Your task to perform on an android device: uninstall "Truecaller" Image 0: 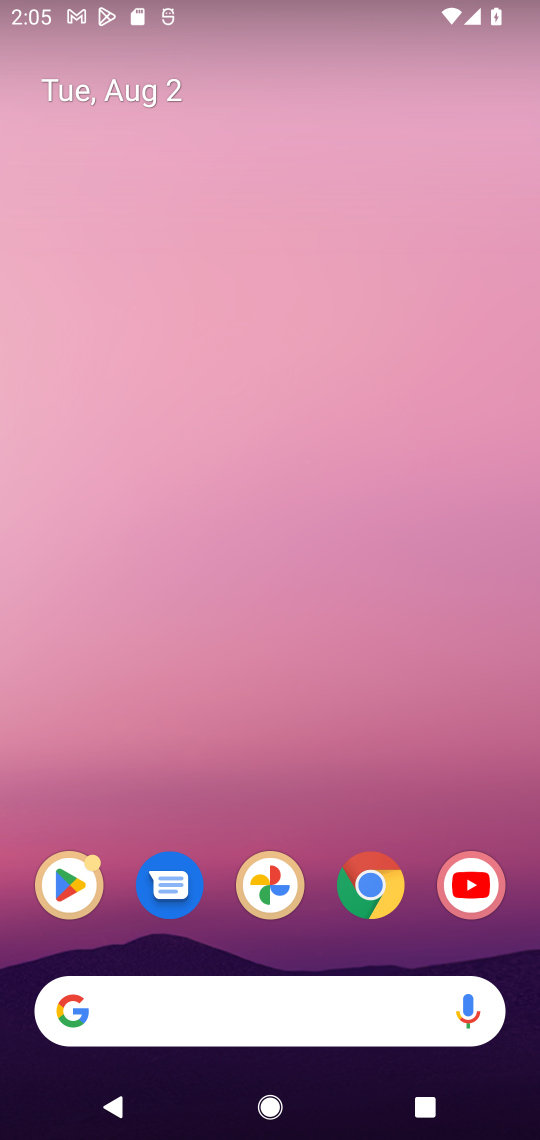
Step 0: click (75, 887)
Your task to perform on an android device: uninstall "Truecaller" Image 1: 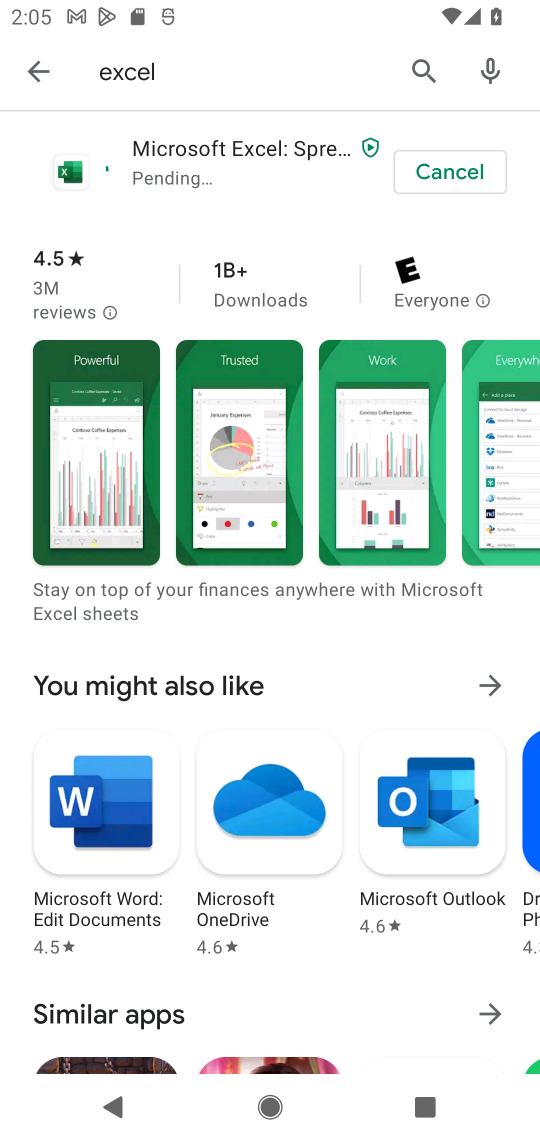
Step 1: click (447, 94)
Your task to perform on an android device: uninstall "Truecaller" Image 2: 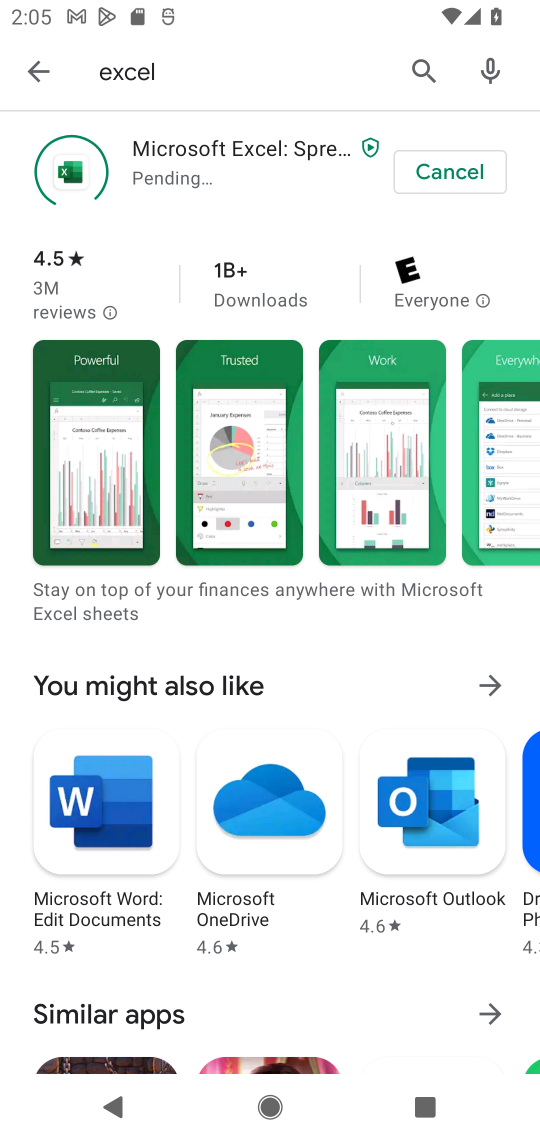
Step 2: click (447, 94)
Your task to perform on an android device: uninstall "Truecaller" Image 3: 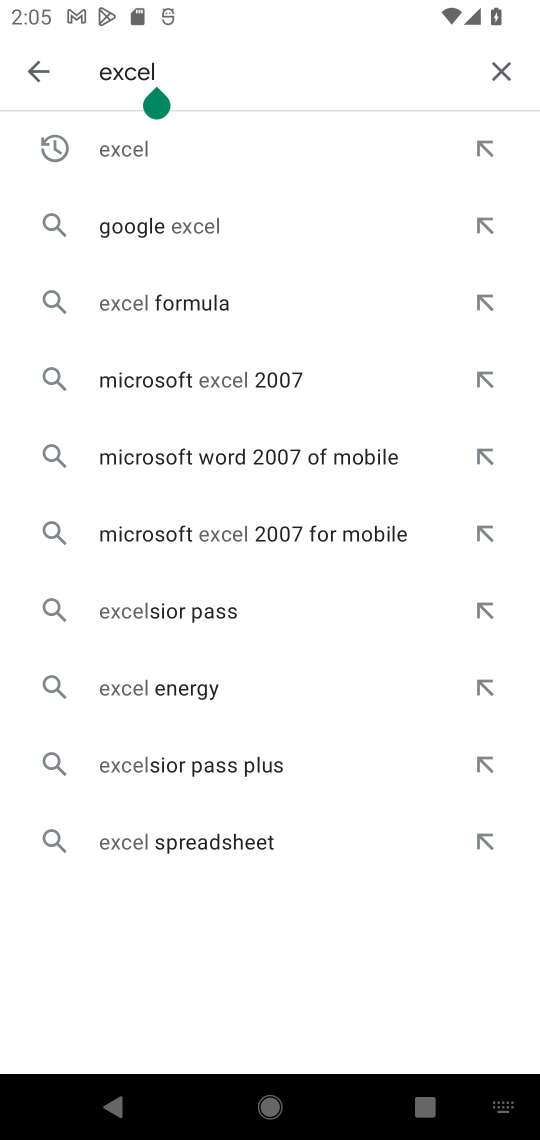
Step 3: click (511, 63)
Your task to perform on an android device: uninstall "Truecaller" Image 4: 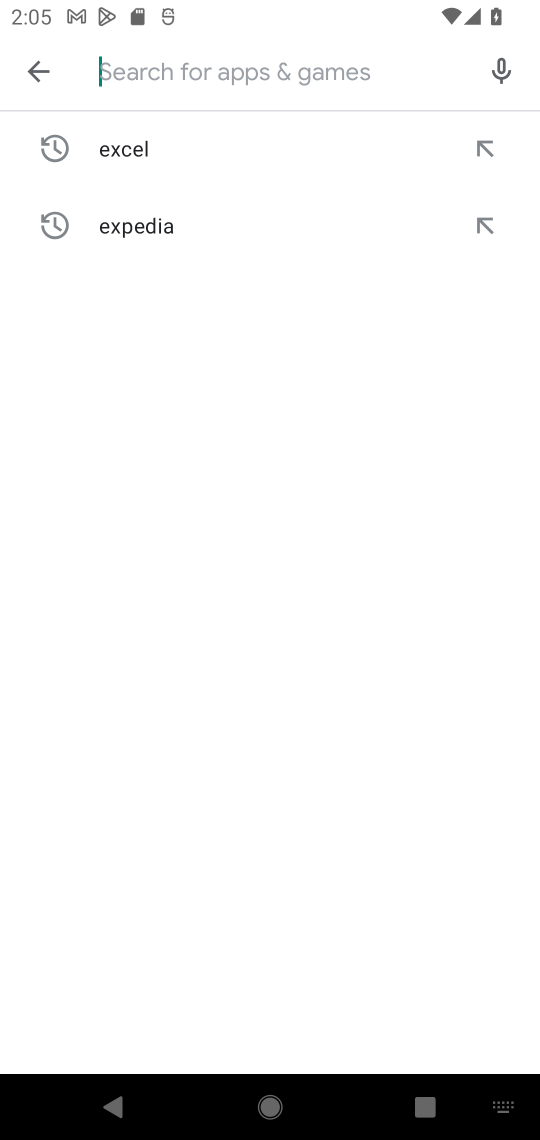
Step 4: type "truecaller"
Your task to perform on an android device: uninstall "Truecaller" Image 5: 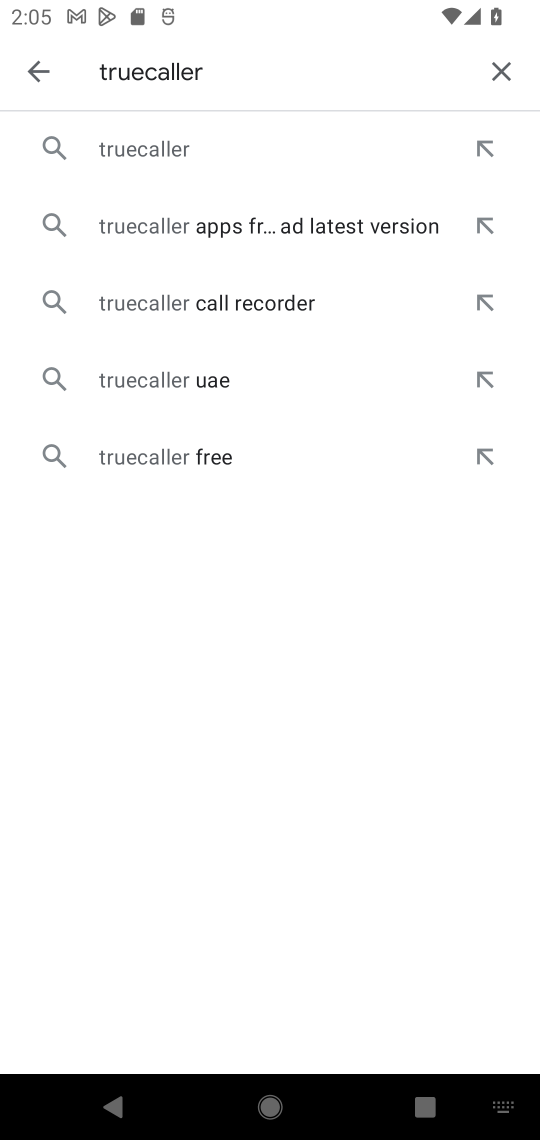
Step 5: click (266, 160)
Your task to perform on an android device: uninstall "Truecaller" Image 6: 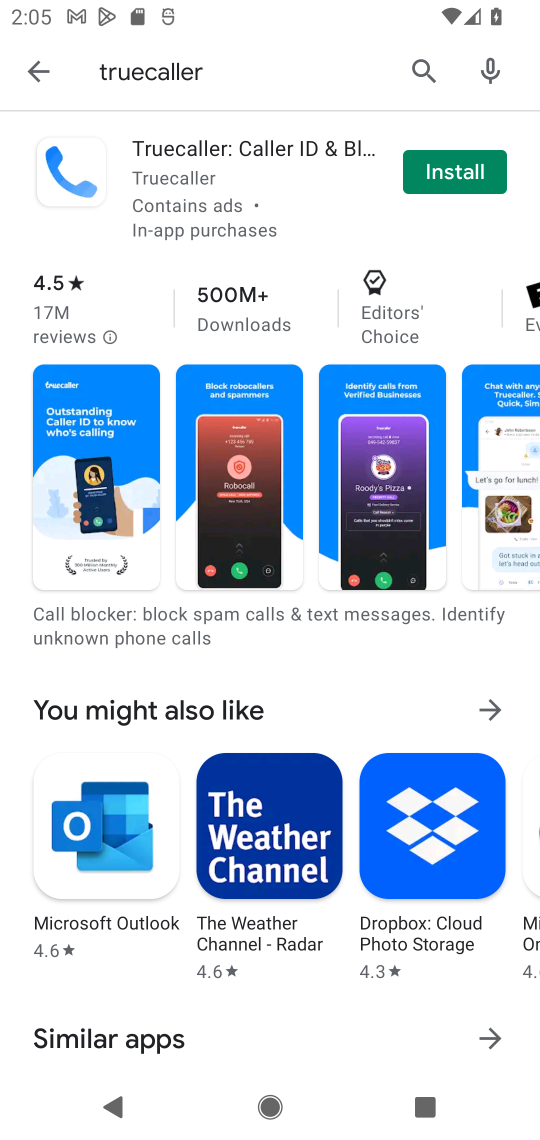
Step 6: click (451, 176)
Your task to perform on an android device: uninstall "Truecaller" Image 7: 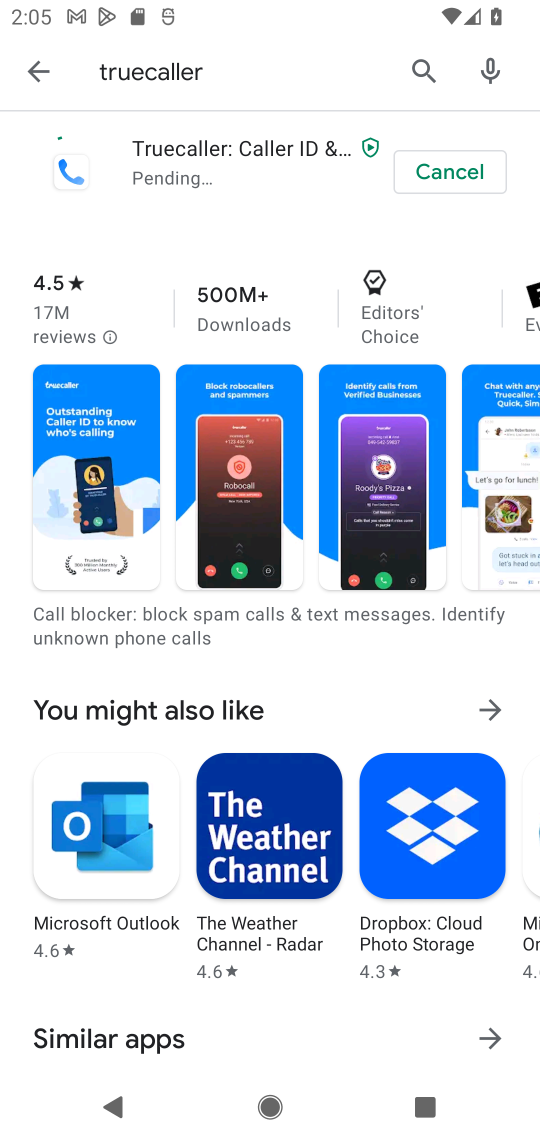
Step 7: task complete